Your task to perform on an android device: Turn on the flashlight Image 0: 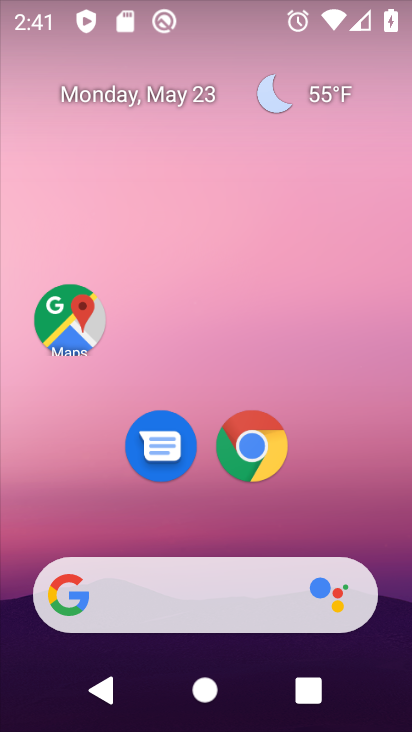
Step 0: drag from (204, 530) to (206, 197)
Your task to perform on an android device: Turn on the flashlight Image 1: 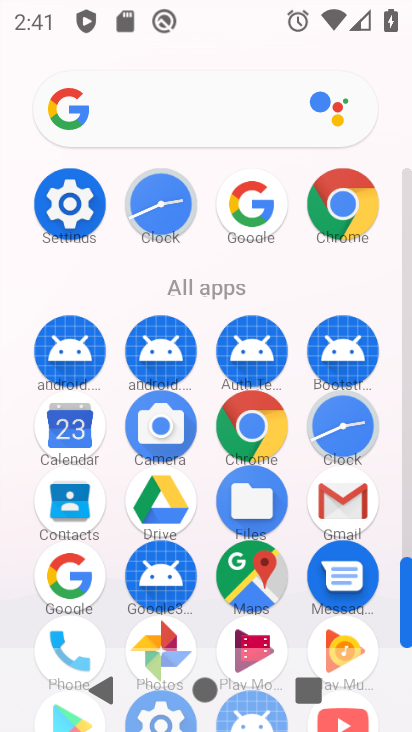
Step 1: click (80, 216)
Your task to perform on an android device: Turn on the flashlight Image 2: 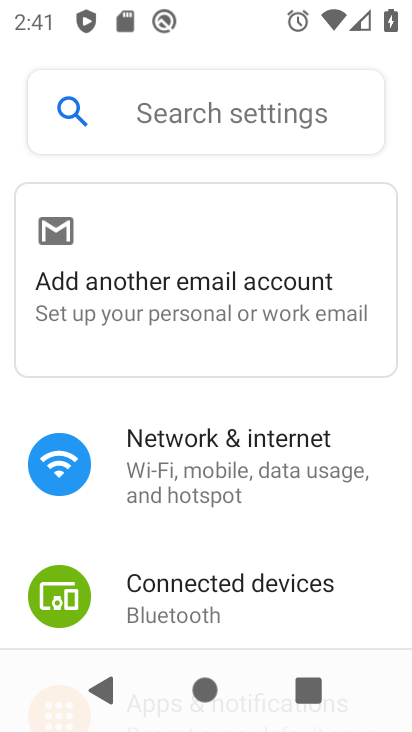
Step 2: task complete